Your task to perform on an android device: check google app version Image 0: 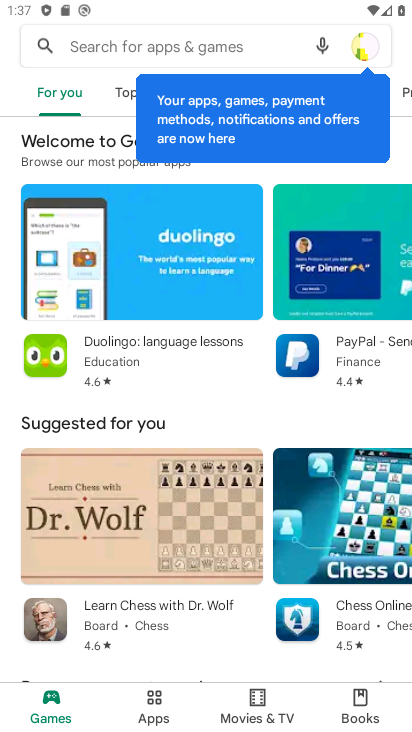
Step 0: press home button
Your task to perform on an android device: check google app version Image 1: 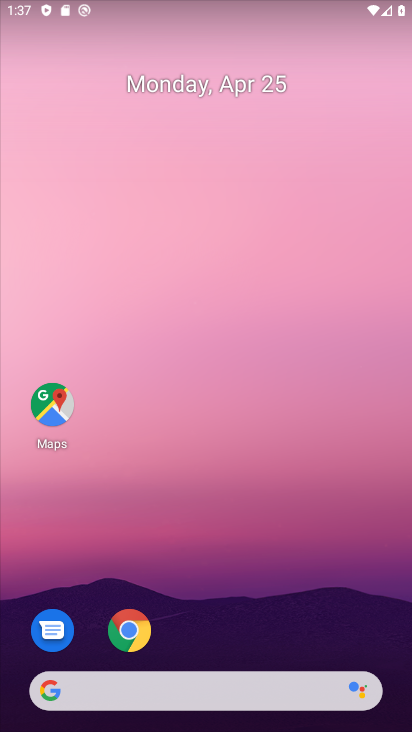
Step 1: drag from (216, 624) to (177, 72)
Your task to perform on an android device: check google app version Image 2: 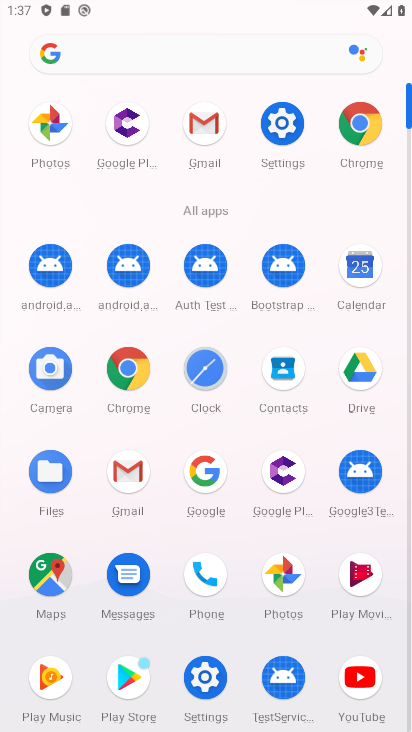
Step 2: drag from (198, 478) to (318, 314)
Your task to perform on an android device: check google app version Image 3: 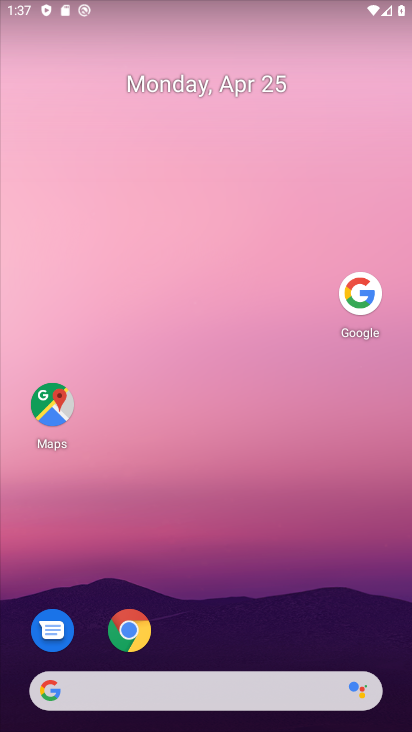
Step 3: drag from (341, 310) to (319, 143)
Your task to perform on an android device: check google app version Image 4: 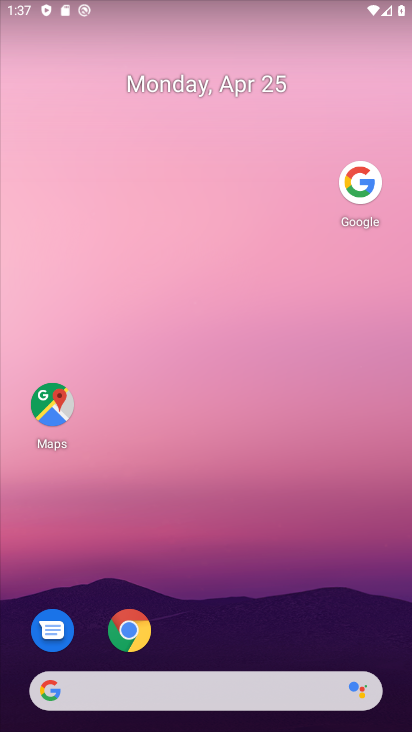
Step 4: click (351, 198)
Your task to perform on an android device: check google app version Image 5: 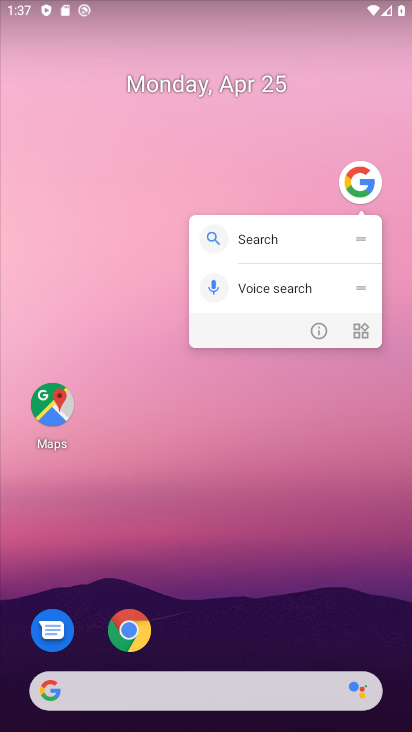
Step 5: click (322, 329)
Your task to perform on an android device: check google app version Image 6: 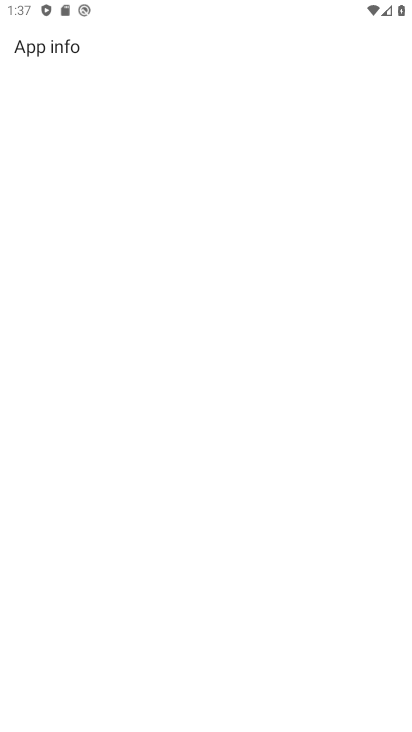
Step 6: drag from (305, 519) to (288, 56)
Your task to perform on an android device: check google app version Image 7: 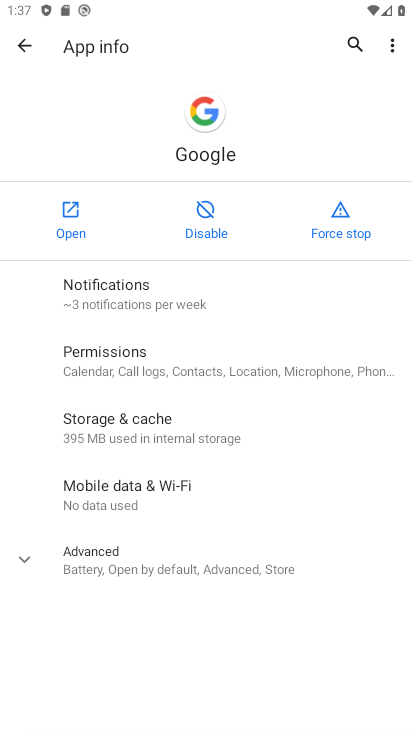
Step 7: click (118, 548)
Your task to perform on an android device: check google app version Image 8: 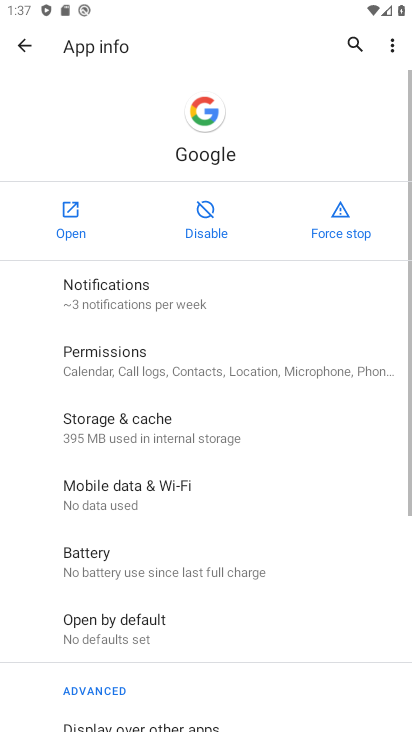
Step 8: task complete